Your task to perform on an android device: Open Google Image 0: 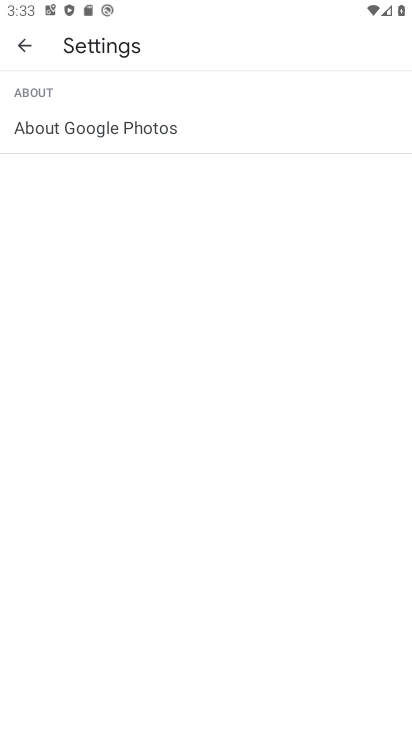
Step 0: press home button
Your task to perform on an android device: Open Google Image 1: 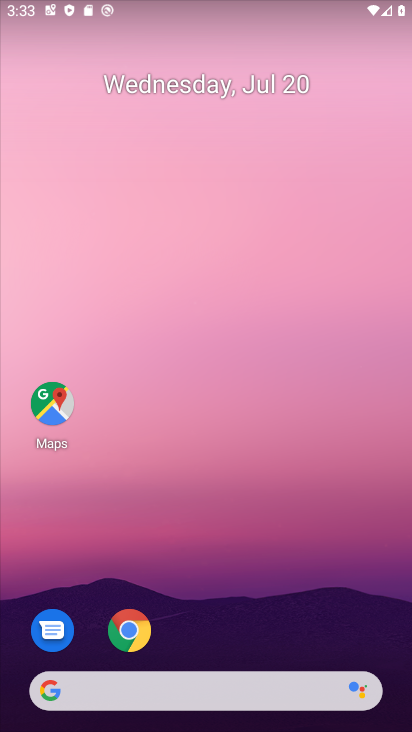
Step 1: drag from (195, 636) to (205, 136)
Your task to perform on an android device: Open Google Image 2: 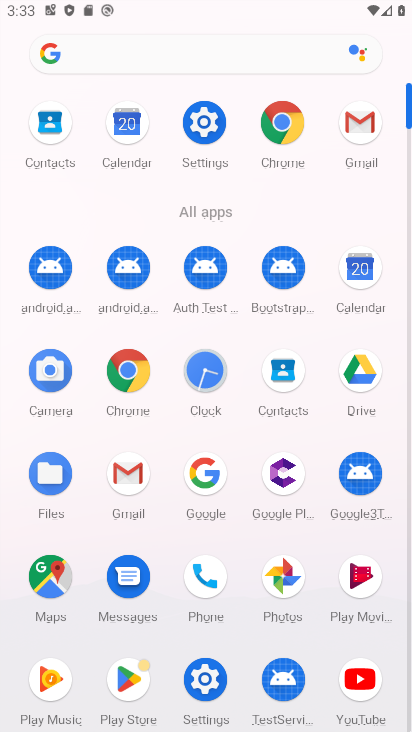
Step 2: click (205, 463)
Your task to perform on an android device: Open Google Image 3: 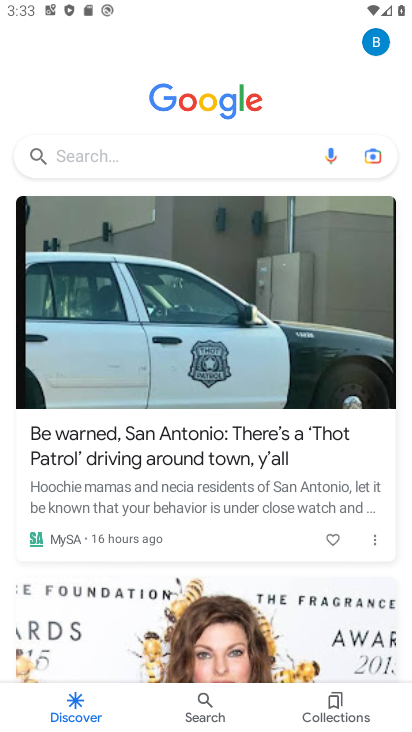
Step 3: click (370, 37)
Your task to perform on an android device: Open Google Image 4: 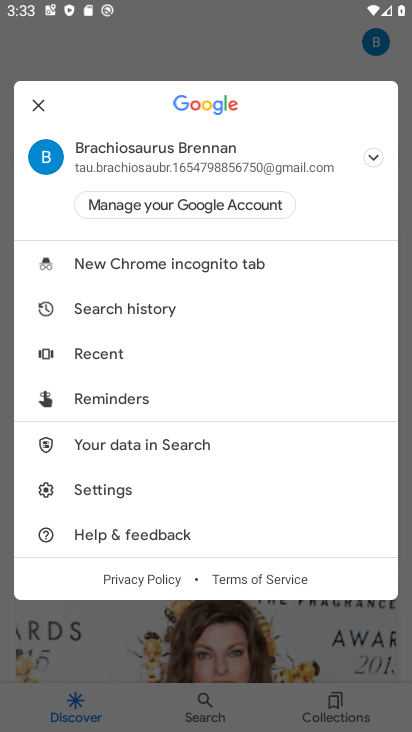
Step 4: task complete